Your task to perform on an android device: Open maps Image 0: 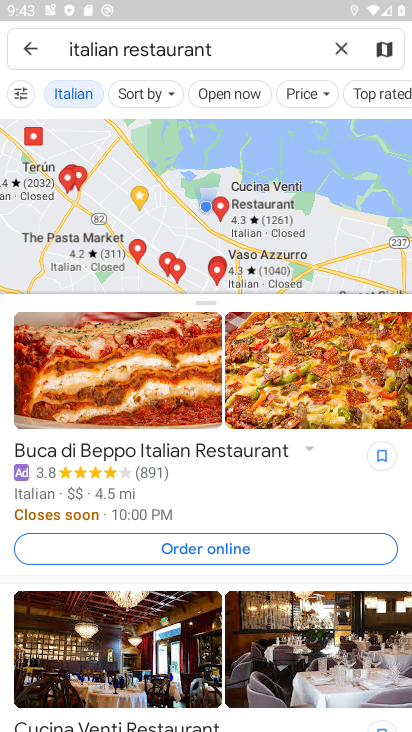
Step 0: task complete